Your task to perform on an android device: Is it going to rain today? Image 0: 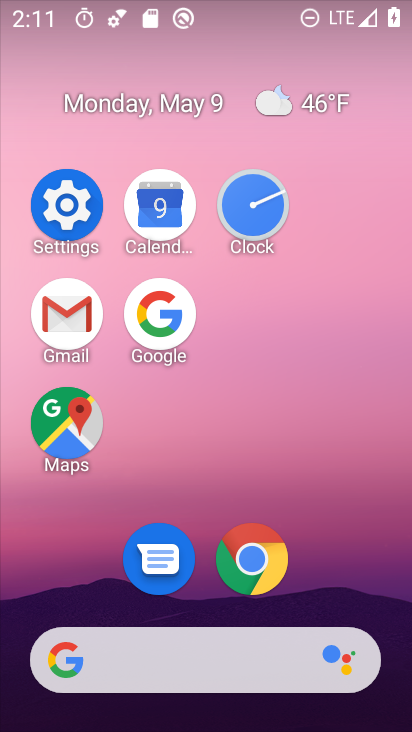
Step 0: click (164, 308)
Your task to perform on an android device: Is it going to rain today? Image 1: 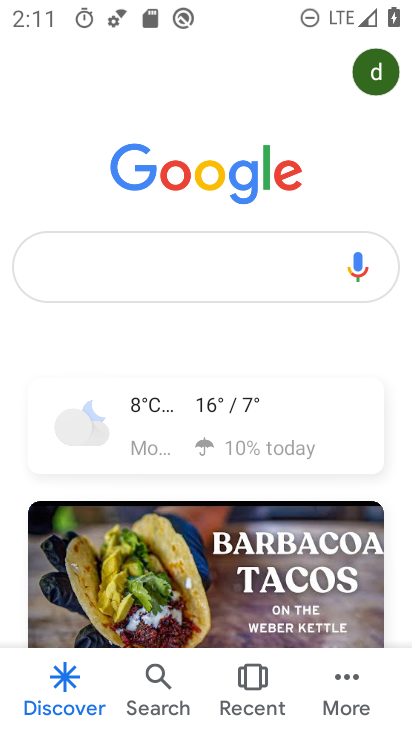
Step 1: task complete